Your task to perform on an android device: toggle airplane mode Image 0: 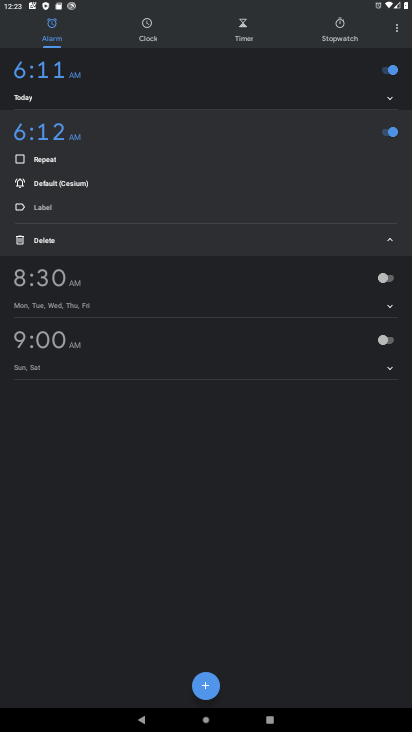
Step 0: press home button
Your task to perform on an android device: toggle airplane mode Image 1: 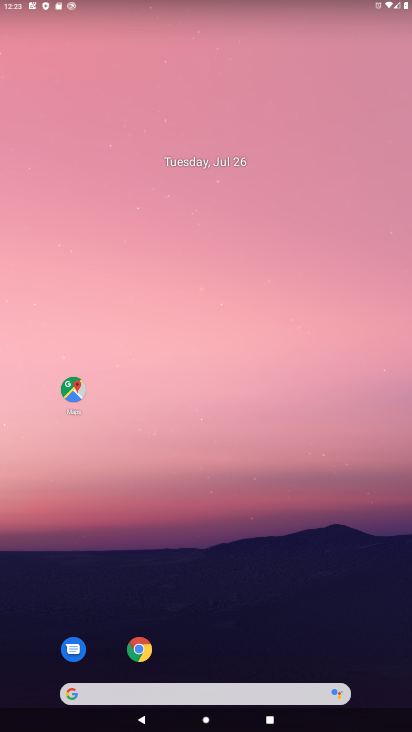
Step 1: drag from (221, 569) to (225, 31)
Your task to perform on an android device: toggle airplane mode Image 2: 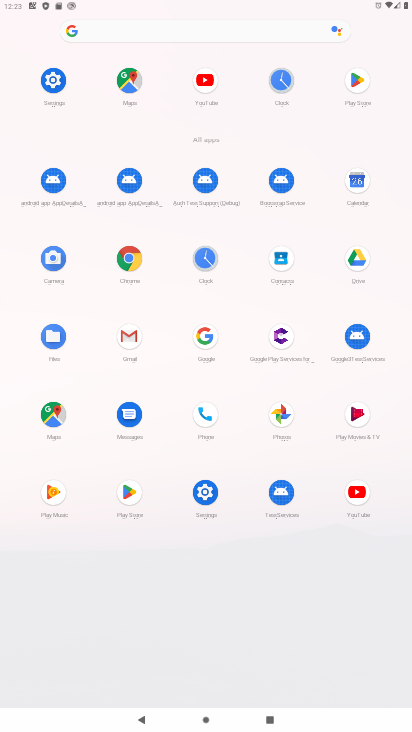
Step 2: click (52, 85)
Your task to perform on an android device: toggle airplane mode Image 3: 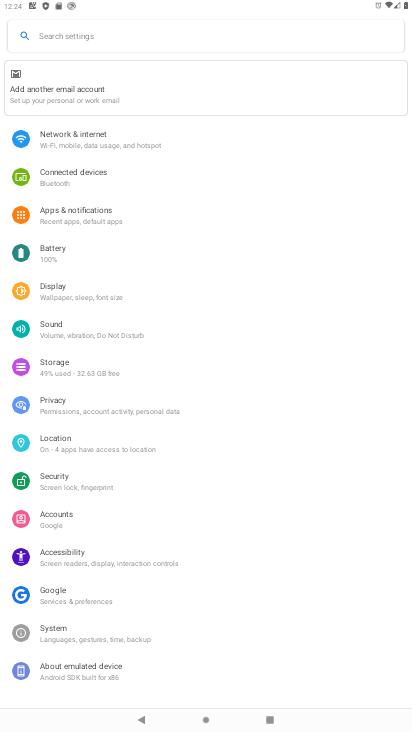
Step 3: click (71, 136)
Your task to perform on an android device: toggle airplane mode Image 4: 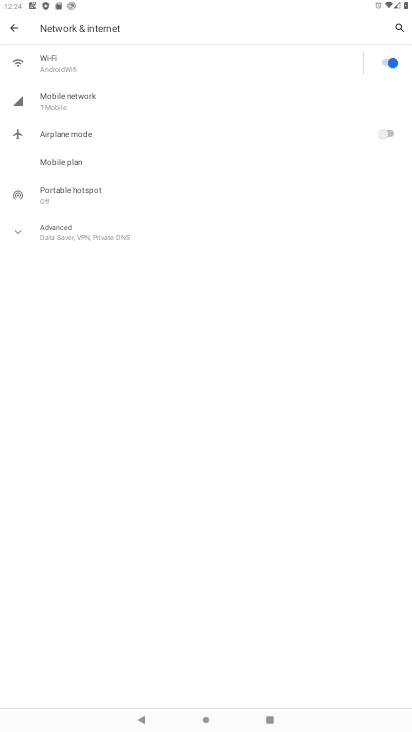
Step 4: click (384, 136)
Your task to perform on an android device: toggle airplane mode Image 5: 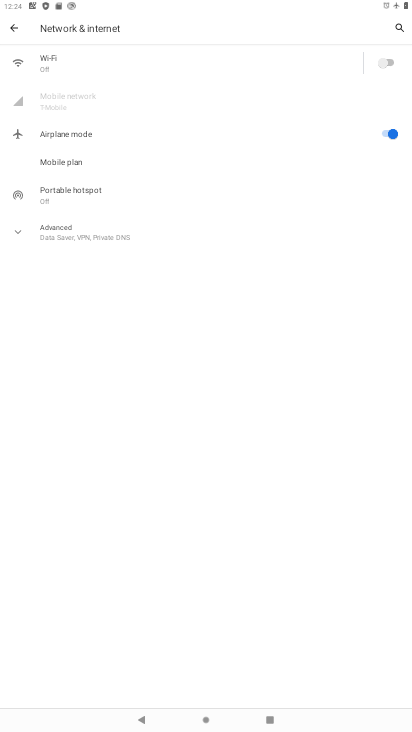
Step 5: task complete